Your task to perform on an android device: find snoozed emails in the gmail app Image 0: 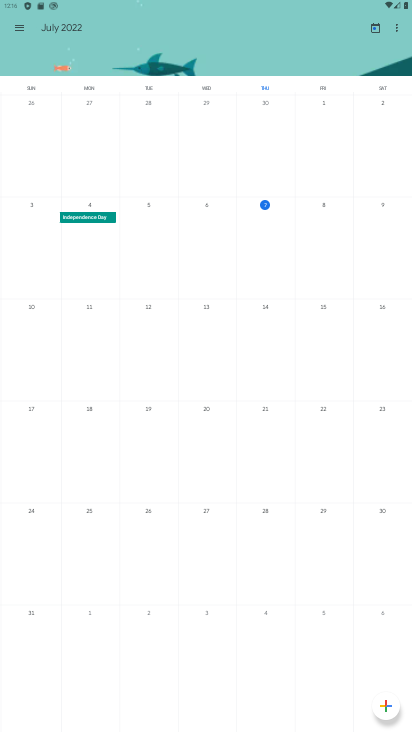
Step 0: press back button
Your task to perform on an android device: find snoozed emails in the gmail app Image 1: 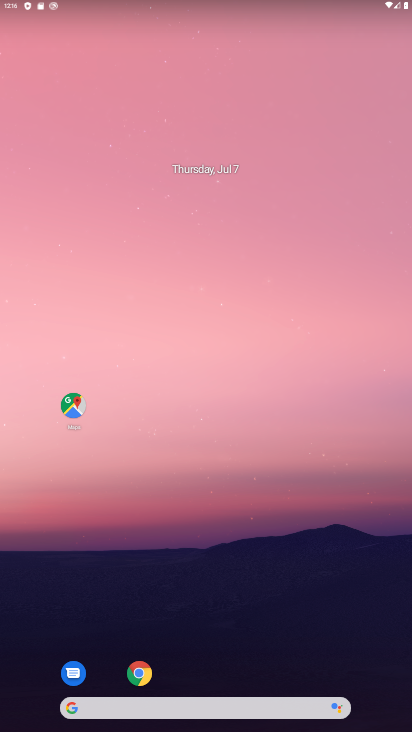
Step 1: drag from (200, 688) to (278, 117)
Your task to perform on an android device: find snoozed emails in the gmail app Image 2: 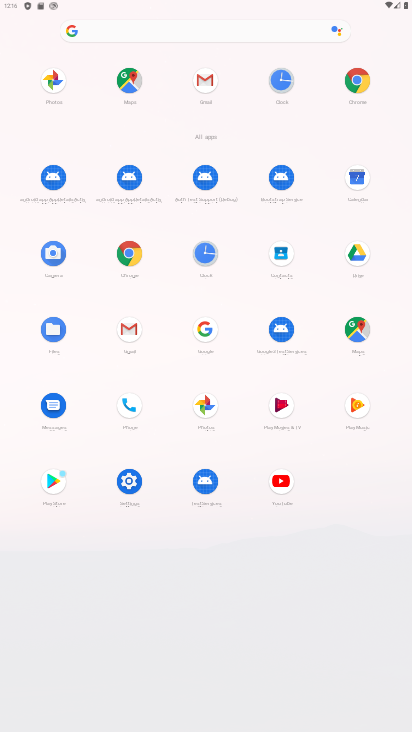
Step 2: click (129, 333)
Your task to perform on an android device: find snoozed emails in the gmail app Image 3: 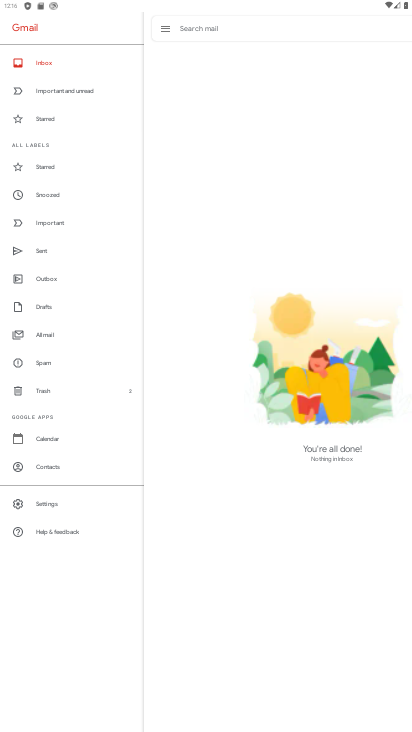
Step 3: click (66, 198)
Your task to perform on an android device: find snoozed emails in the gmail app Image 4: 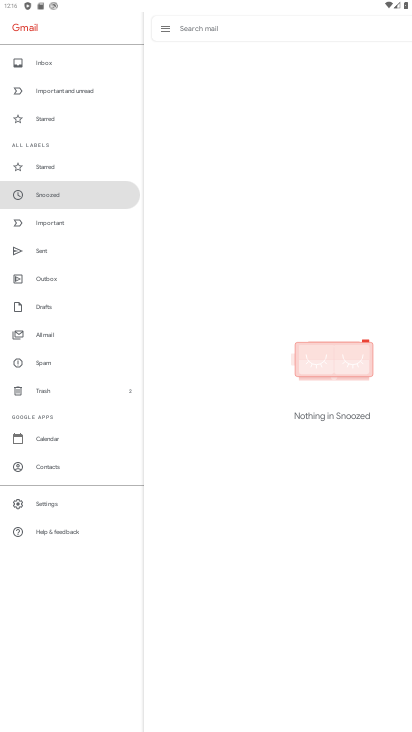
Step 4: task complete